Your task to perform on an android device: open device folders in google photos Image 0: 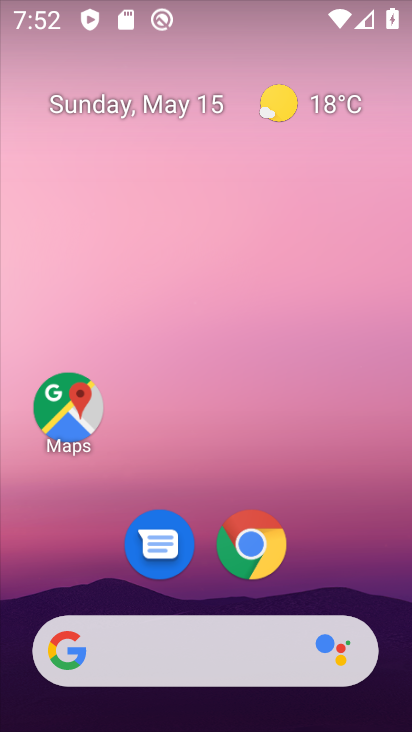
Step 0: drag from (327, 565) to (294, 188)
Your task to perform on an android device: open device folders in google photos Image 1: 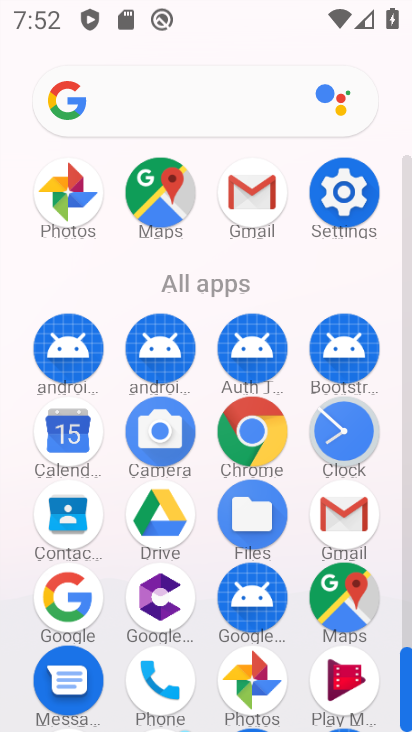
Step 1: click (237, 684)
Your task to perform on an android device: open device folders in google photos Image 2: 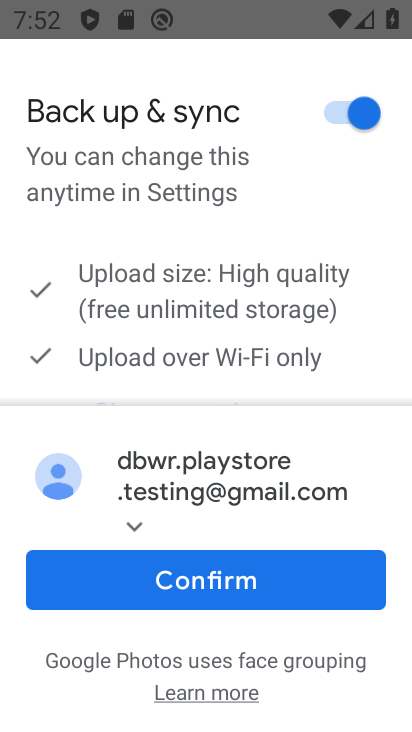
Step 2: click (252, 591)
Your task to perform on an android device: open device folders in google photos Image 3: 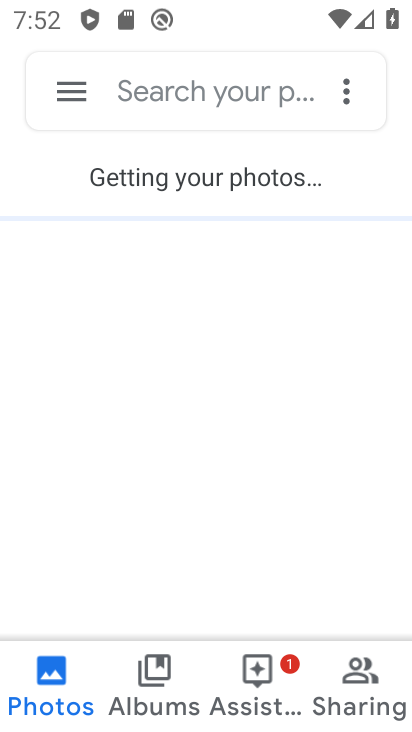
Step 3: click (76, 91)
Your task to perform on an android device: open device folders in google photos Image 4: 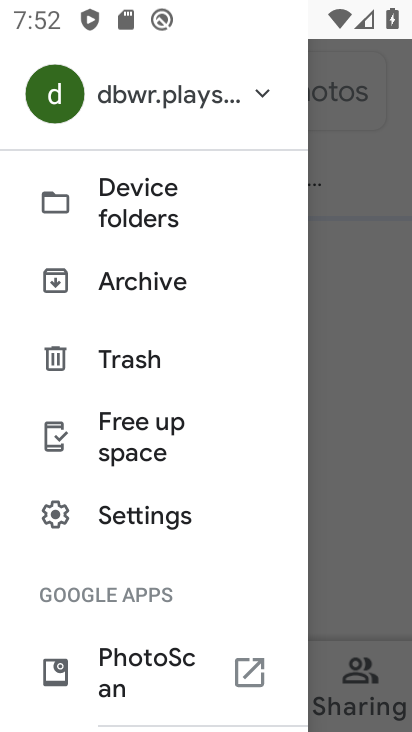
Step 4: click (218, 217)
Your task to perform on an android device: open device folders in google photos Image 5: 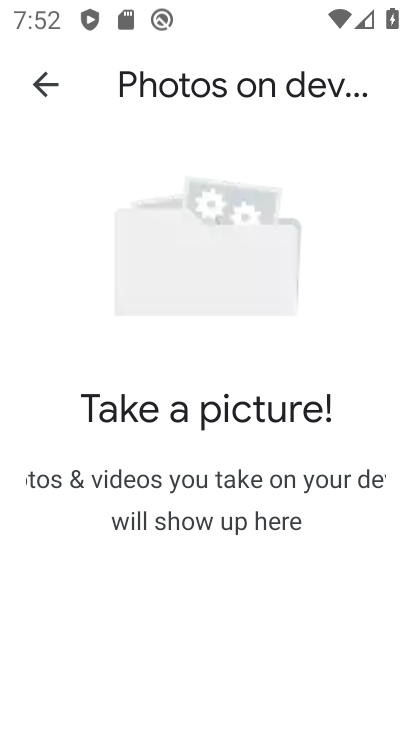
Step 5: task complete